Your task to perform on an android device: Open sound settings Image 0: 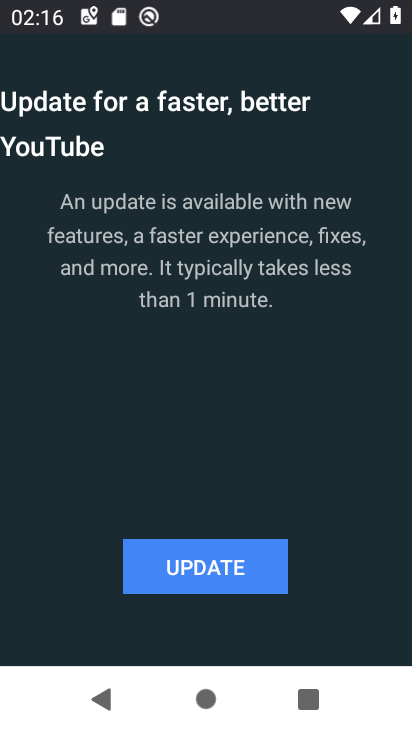
Step 0: press home button
Your task to perform on an android device: Open sound settings Image 1: 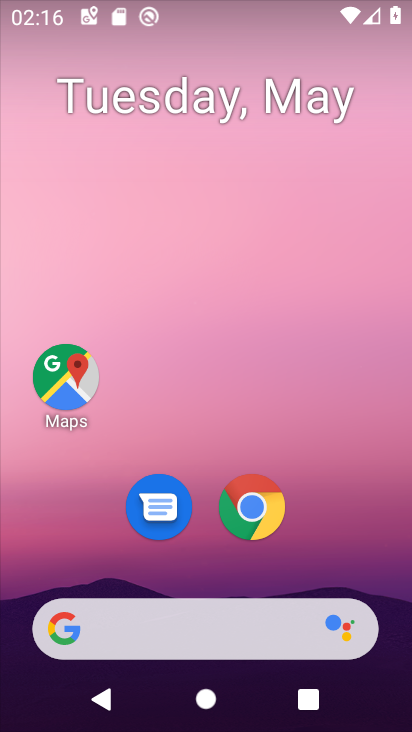
Step 1: drag from (228, 569) to (246, 245)
Your task to perform on an android device: Open sound settings Image 2: 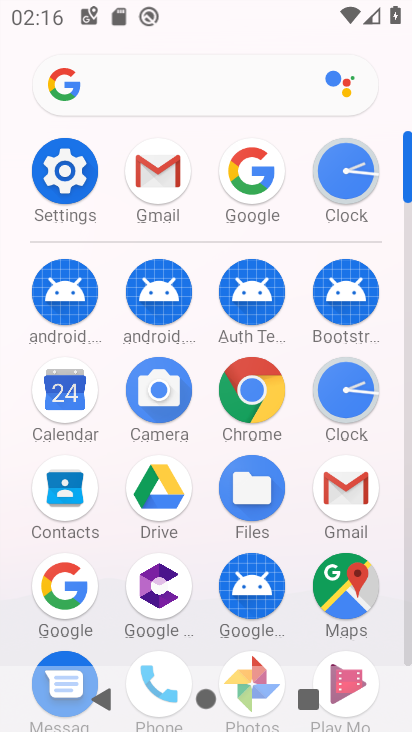
Step 2: click (86, 179)
Your task to perform on an android device: Open sound settings Image 3: 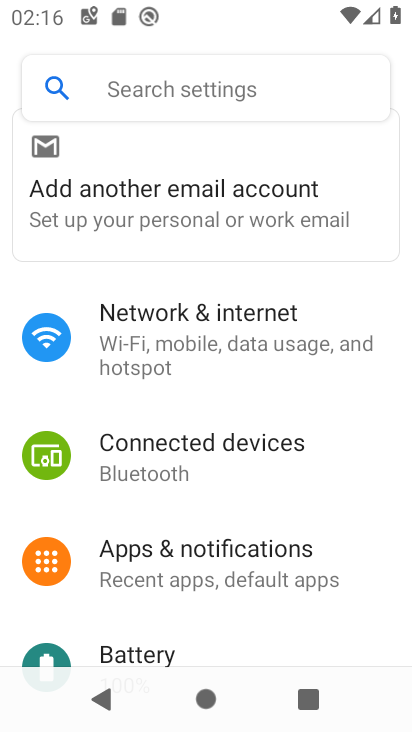
Step 3: drag from (259, 568) to (275, 257)
Your task to perform on an android device: Open sound settings Image 4: 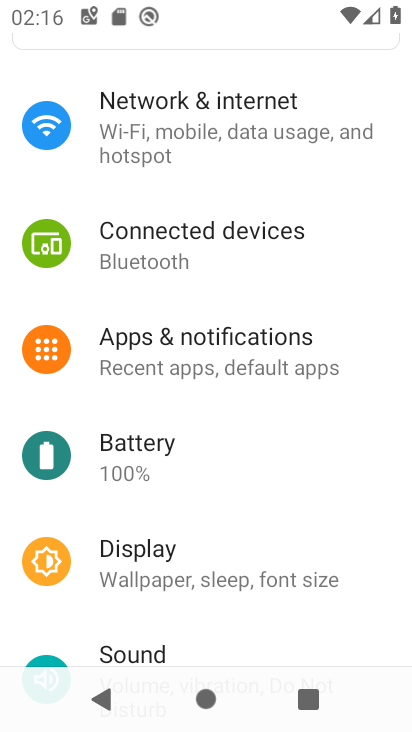
Step 4: drag from (198, 635) to (237, 364)
Your task to perform on an android device: Open sound settings Image 5: 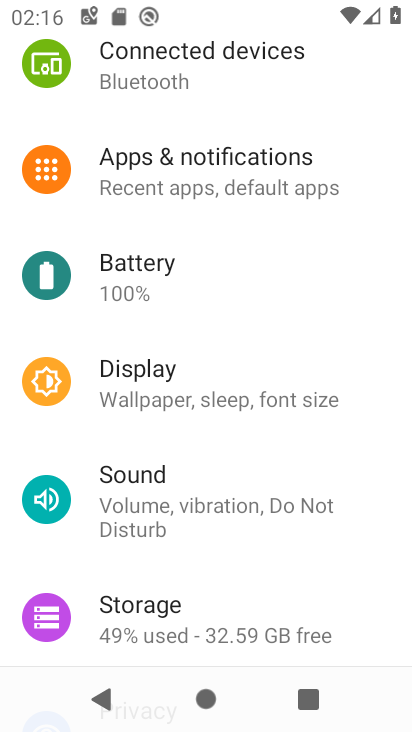
Step 5: click (172, 519)
Your task to perform on an android device: Open sound settings Image 6: 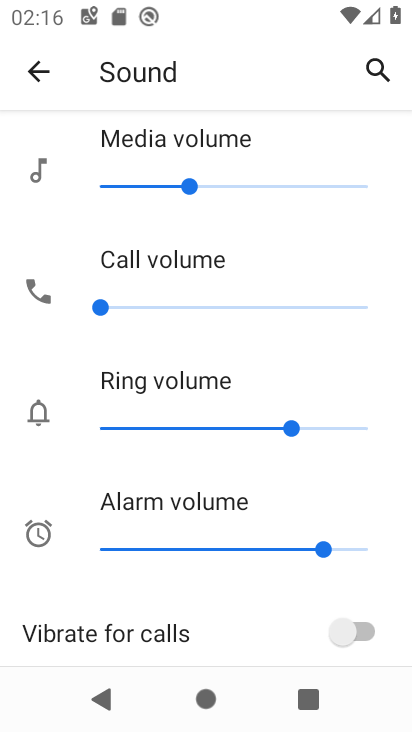
Step 6: task complete